Your task to perform on an android device: change timer sound Image 0: 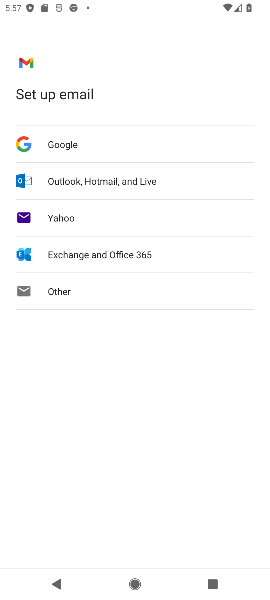
Step 0: press home button
Your task to perform on an android device: change timer sound Image 1: 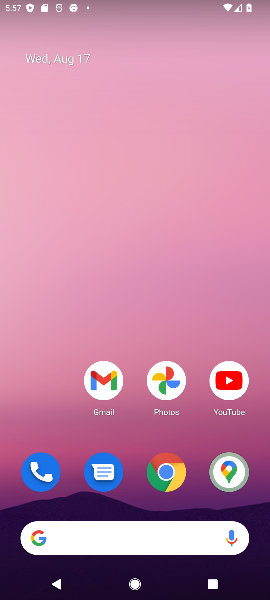
Step 1: drag from (126, 427) to (134, 85)
Your task to perform on an android device: change timer sound Image 2: 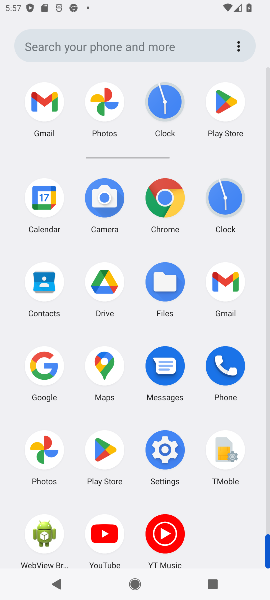
Step 2: click (156, 446)
Your task to perform on an android device: change timer sound Image 3: 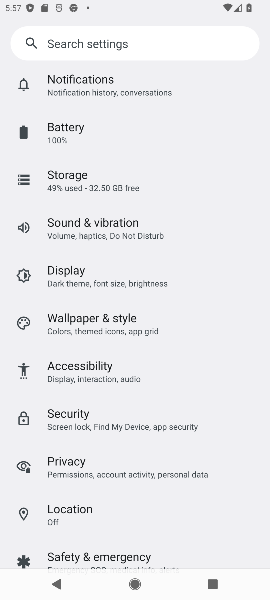
Step 3: press home button
Your task to perform on an android device: change timer sound Image 4: 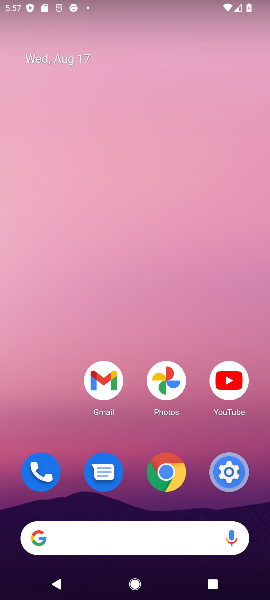
Step 4: drag from (158, 436) to (157, 108)
Your task to perform on an android device: change timer sound Image 5: 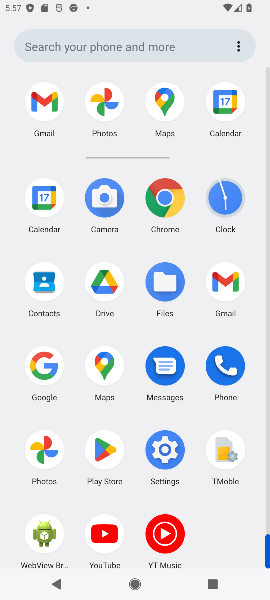
Step 5: click (229, 217)
Your task to perform on an android device: change timer sound Image 6: 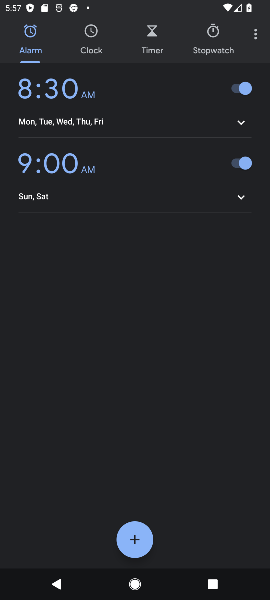
Step 6: click (253, 36)
Your task to perform on an android device: change timer sound Image 7: 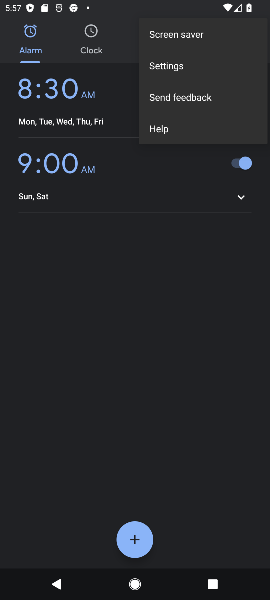
Step 7: click (201, 64)
Your task to perform on an android device: change timer sound Image 8: 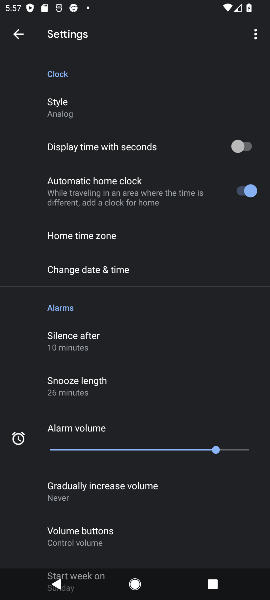
Step 8: drag from (126, 501) to (126, 201)
Your task to perform on an android device: change timer sound Image 9: 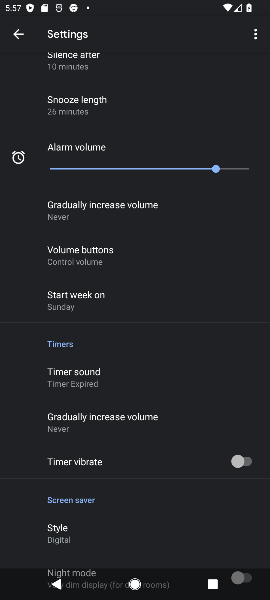
Step 9: drag from (110, 463) to (110, 160)
Your task to perform on an android device: change timer sound Image 10: 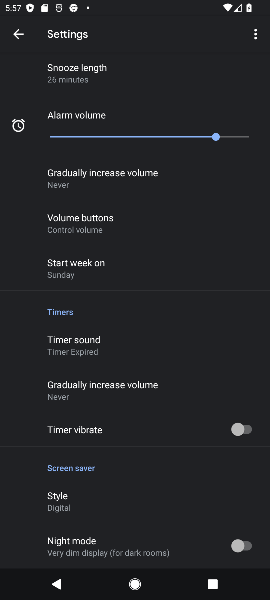
Step 10: drag from (110, 247) to (107, 429)
Your task to perform on an android device: change timer sound Image 11: 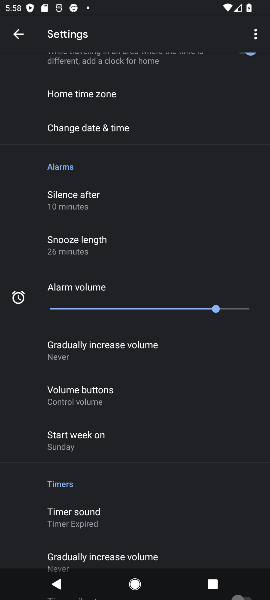
Step 11: drag from (124, 219) to (130, 430)
Your task to perform on an android device: change timer sound Image 12: 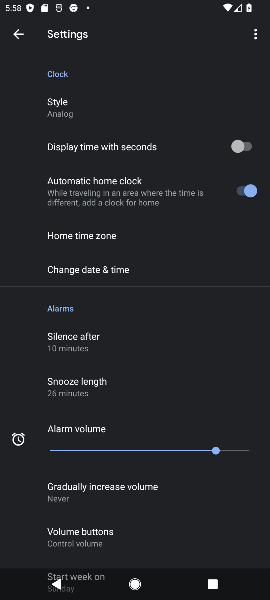
Step 12: drag from (122, 177) to (122, 415)
Your task to perform on an android device: change timer sound Image 13: 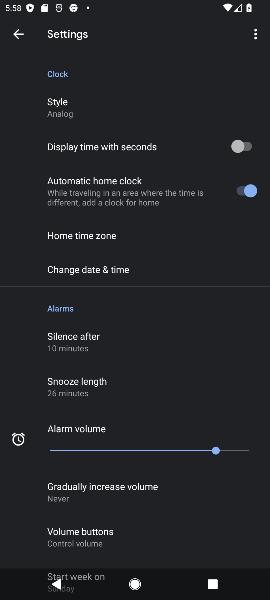
Step 13: drag from (121, 229) to (121, 503)
Your task to perform on an android device: change timer sound Image 14: 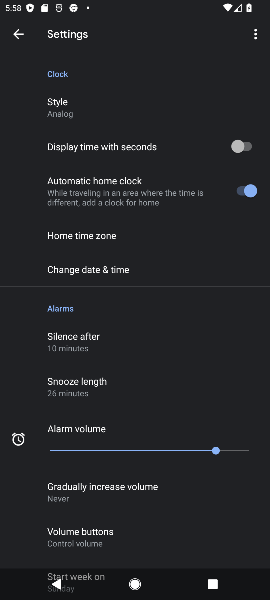
Step 14: drag from (129, 441) to (139, 226)
Your task to perform on an android device: change timer sound Image 15: 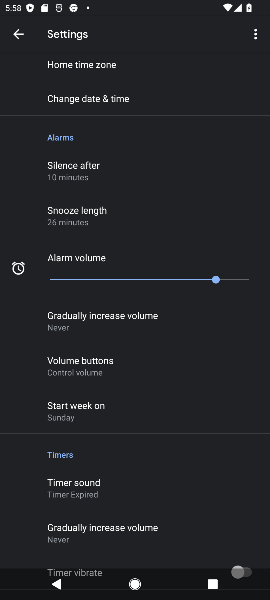
Step 15: drag from (141, 462) to (145, 201)
Your task to perform on an android device: change timer sound Image 16: 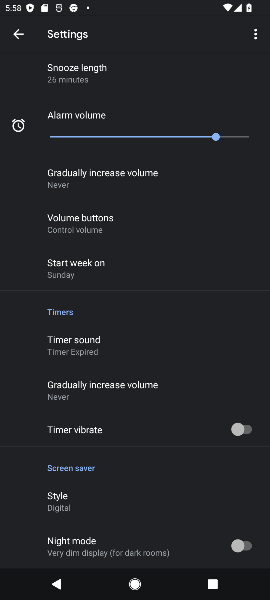
Step 16: click (117, 341)
Your task to perform on an android device: change timer sound Image 17: 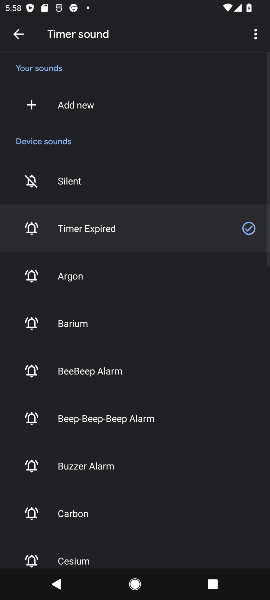
Step 17: click (110, 373)
Your task to perform on an android device: change timer sound Image 18: 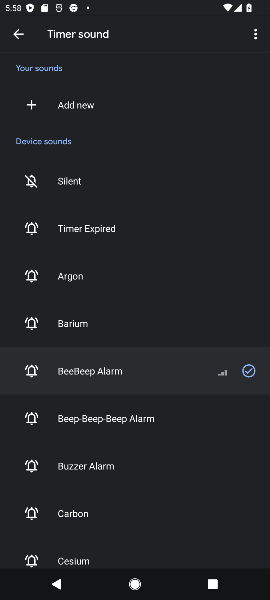
Step 18: task complete